Your task to perform on an android device: Open Android settings Image 0: 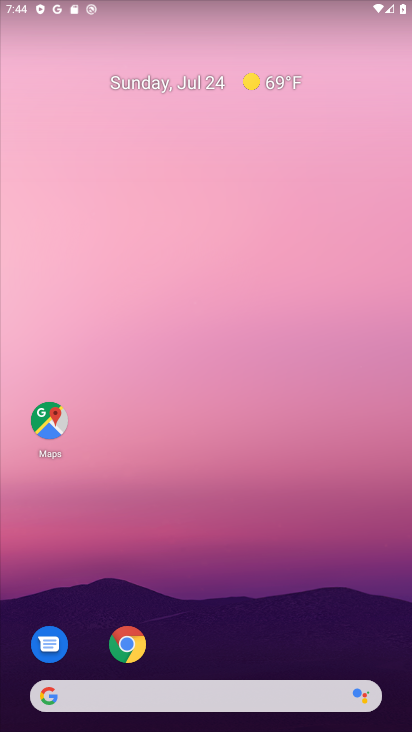
Step 0: drag from (201, 679) to (268, 311)
Your task to perform on an android device: Open Android settings Image 1: 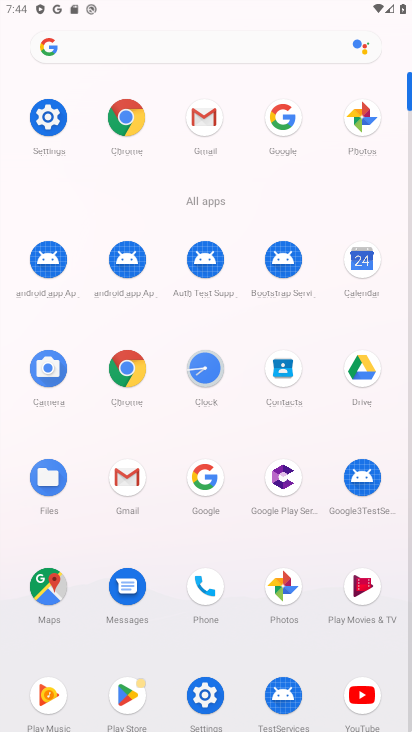
Step 1: click (202, 687)
Your task to perform on an android device: Open Android settings Image 2: 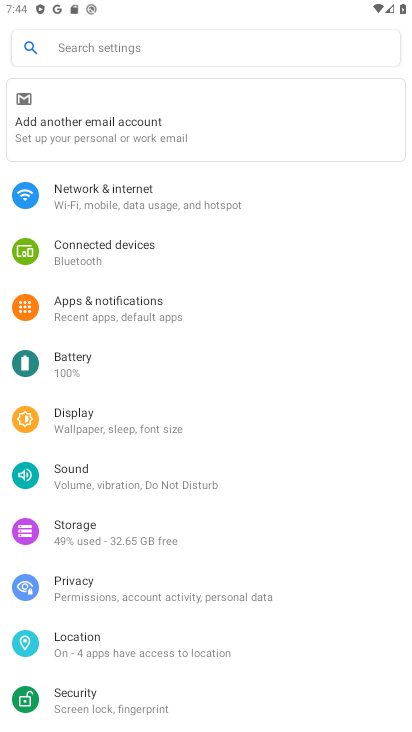
Step 2: task complete